Your task to perform on an android device: find which apps use the phone's location Image 0: 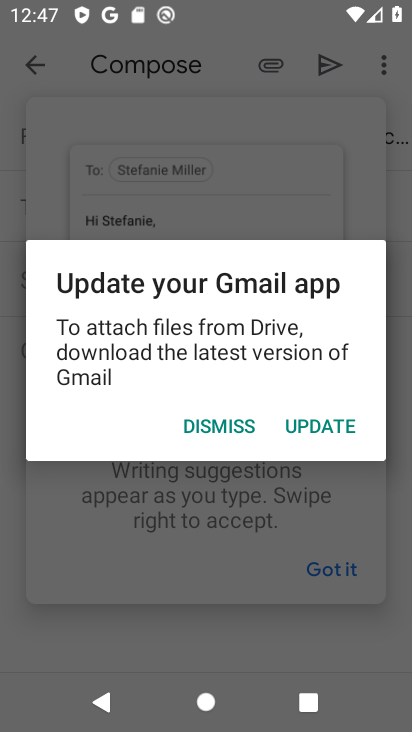
Step 0: press home button
Your task to perform on an android device: find which apps use the phone's location Image 1: 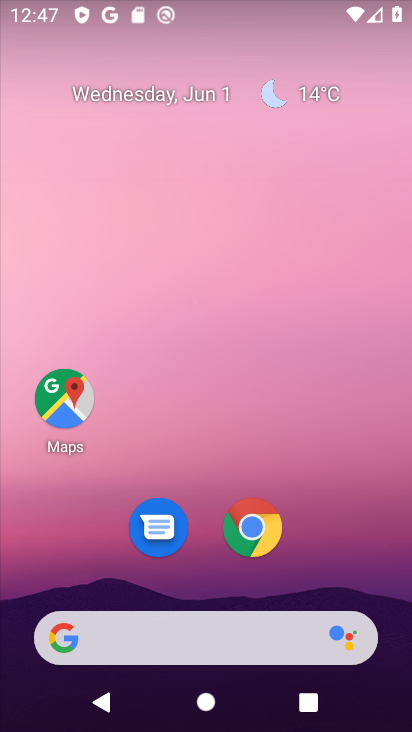
Step 1: drag from (264, 649) to (284, 259)
Your task to perform on an android device: find which apps use the phone's location Image 2: 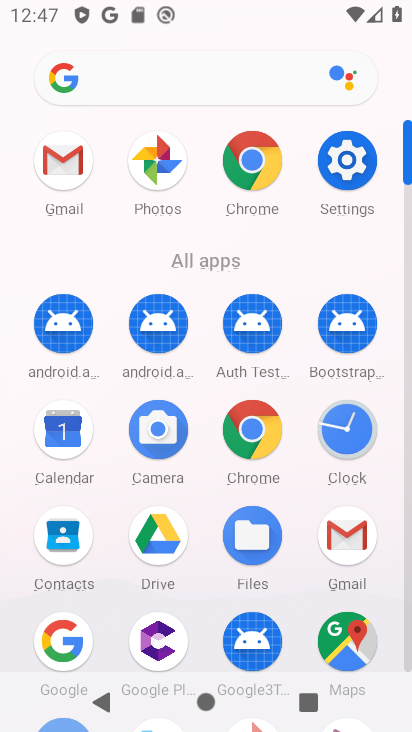
Step 2: click (365, 192)
Your task to perform on an android device: find which apps use the phone's location Image 3: 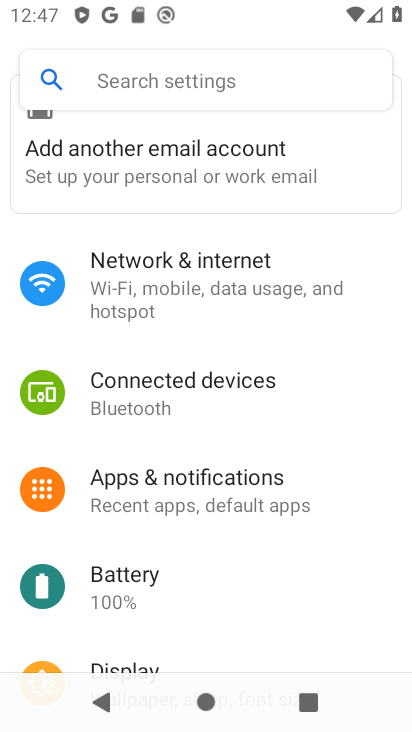
Step 3: drag from (225, 498) to (245, 327)
Your task to perform on an android device: find which apps use the phone's location Image 4: 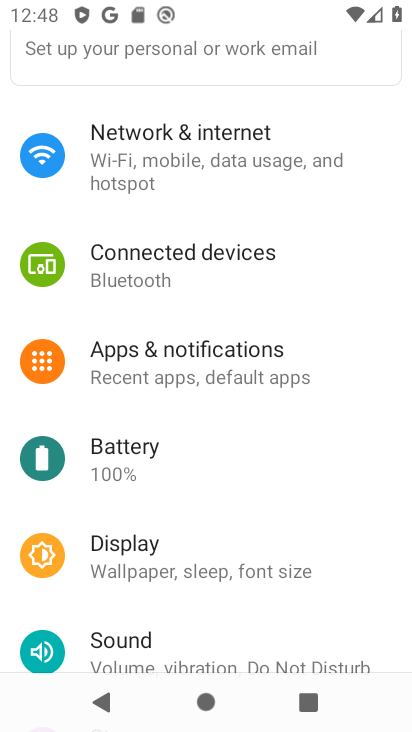
Step 4: drag from (192, 523) to (243, 256)
Your task to perform on an android device: find which apps use the phone's location Image 5: 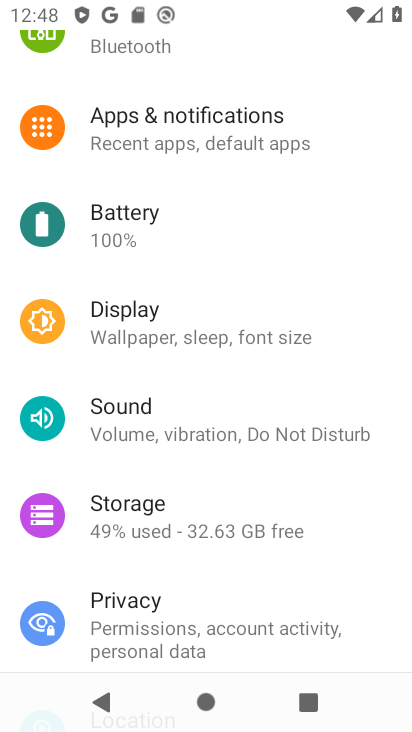
Step 5: drag from (163, 578) to (182, 391)
Your task to perform on an android device: find which apps use the phone's location Image 6: 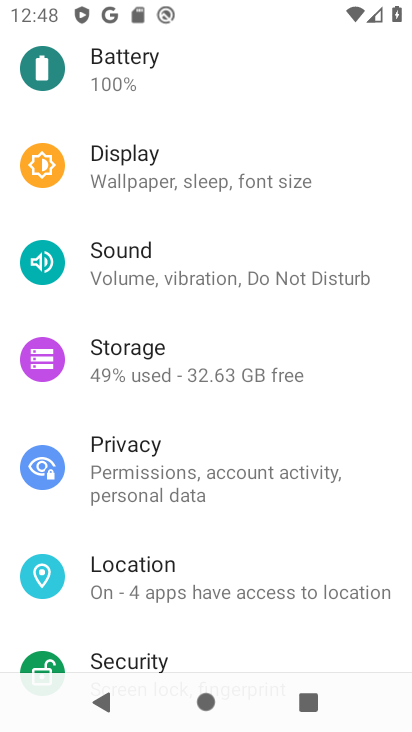
Step 6: drag from (187, 588) to (146, 690)
Your task to perform on an android device: find which apps use the phone's location Image 7: 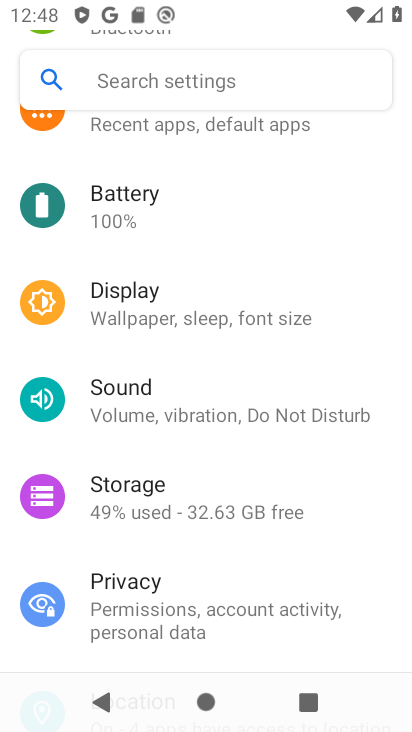
Step 7: drag from (192, 525) to (279, 268)
Your task to perform on an android device: find which apps use the phone's location Image 8: 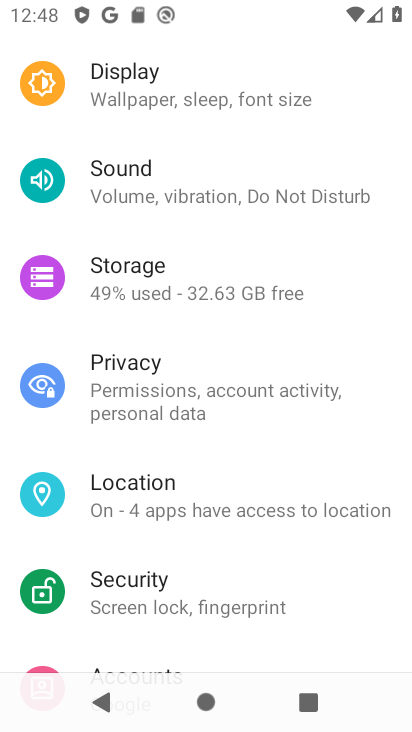
Step 8: click (222, 508)
Your task to perform on an android device: find which apps use the phone's location Image 9: 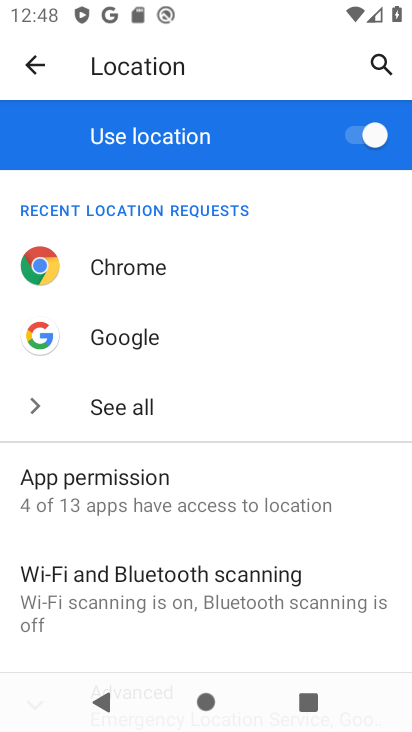
Step 9: drag from (222, 508) to (221, 413)
Your task to perform on an android device: find which apps use the phone's location Image 10: 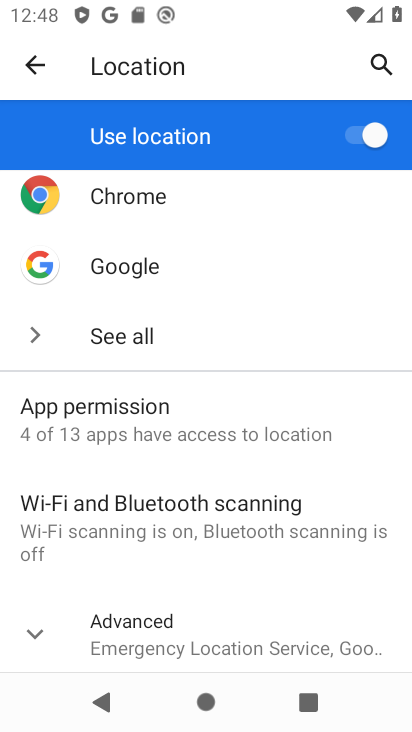
Step 10: click (221, 423)
Your task to perform on an android device: find which apps use the phone's location Image 11: 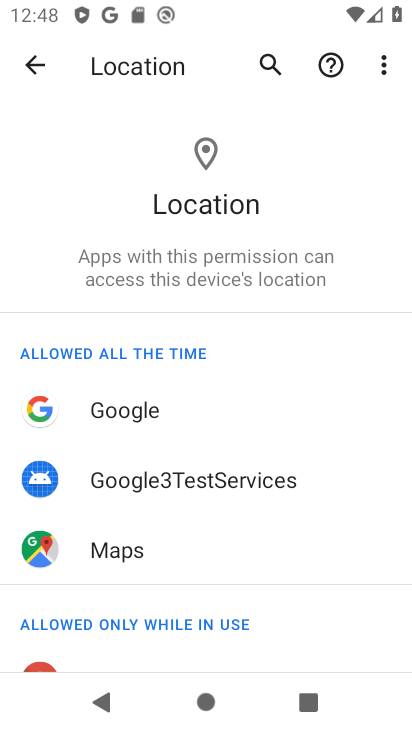
Step 11: task complete